Your task to perform on an android device: allow cookies in the chrome app Image 0: 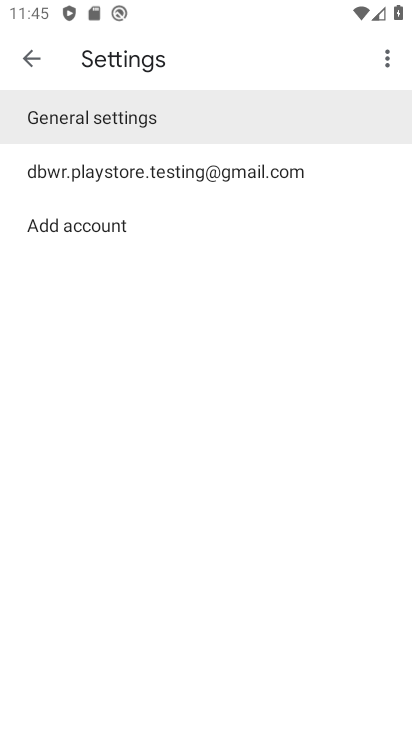
Step 0: press home button
Your task to perform on an android device: allow cookies in the chrome app Image 1: 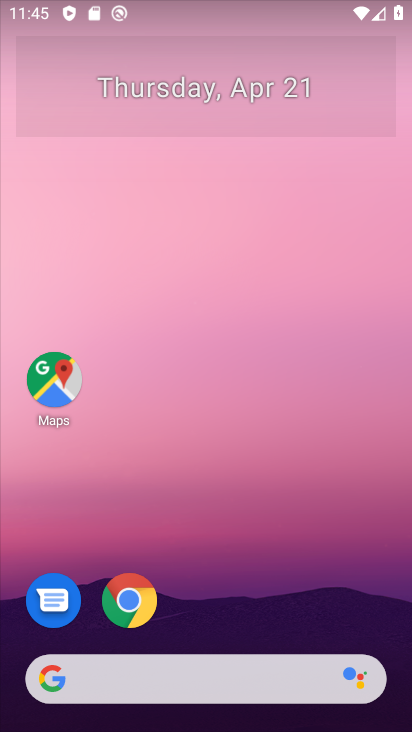
Step 1: click (144, 589)
Your task to perform on an android device: allow cookies in the chrome app Image 2: 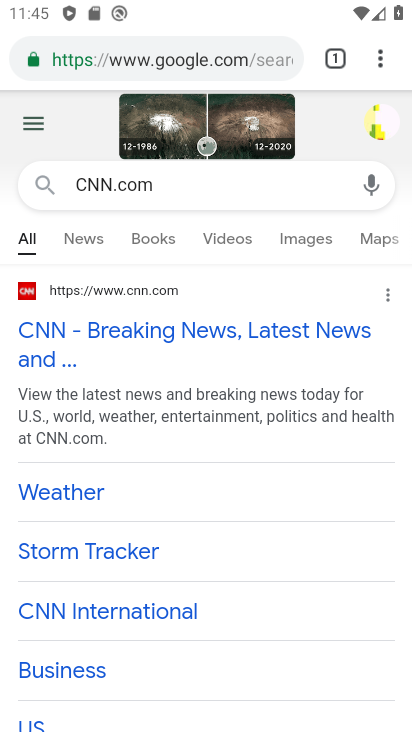
Step 2: click (388, 66)
Your task to perform on an android device: allow cookies in the chrome app Image 3: 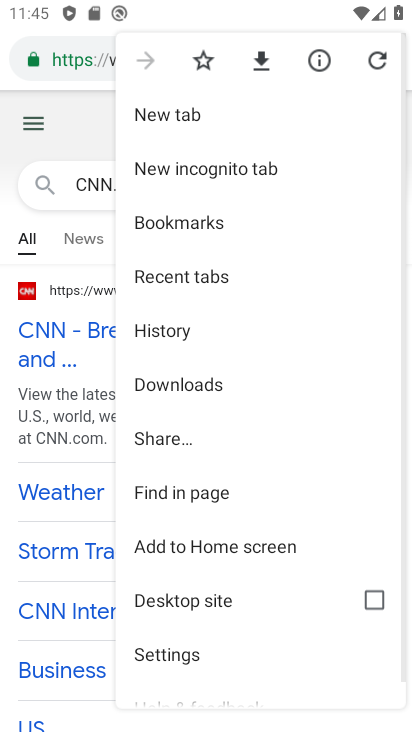
Step 3: drag from (214, 553) to (230, 263)
Your task to perform on an android device: allow cookies in the chrome app Image 4: 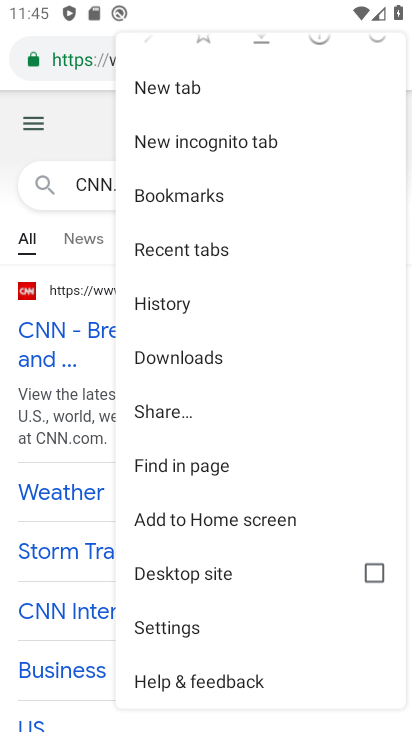
Step 4: click (187, 628)
Your task to perform on an android device: allow cookies in the chrome app Image 5: 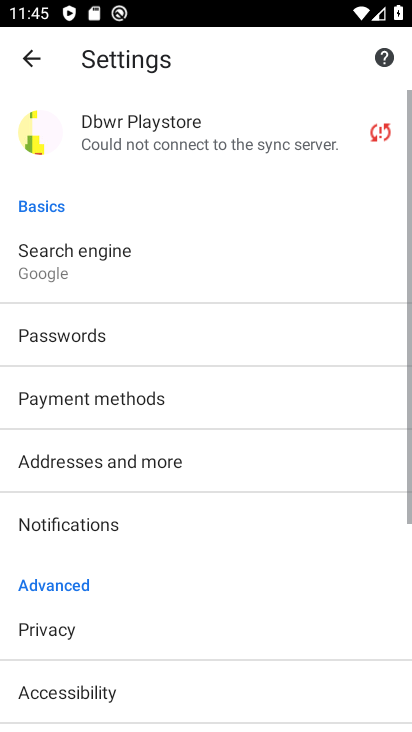
Step 5: drag from (74, 635) to (148, 366)
Your task to perform on an android device: allow cookies in the chrome app Image 6: 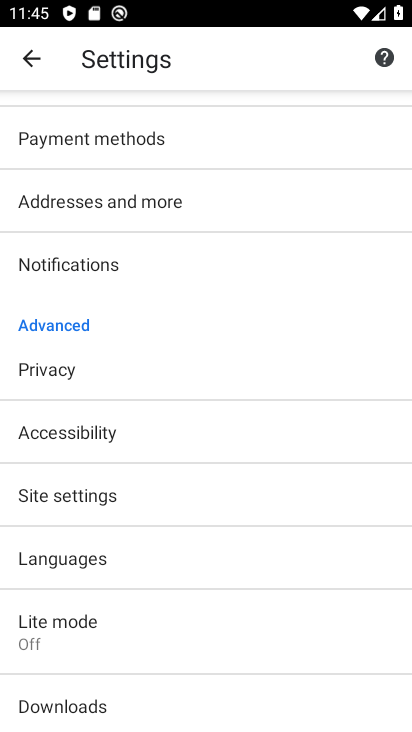
Step 6: click (83, 493)
Your task to perform on an android device: allow cookies in the chrome app Image 7: 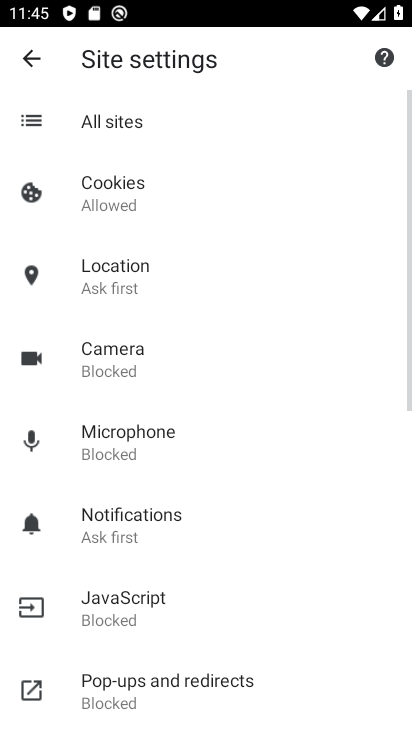
Step 7: click (114, 190)
Your task to perform on an android device: allow cookies in the chrome app Image 8: 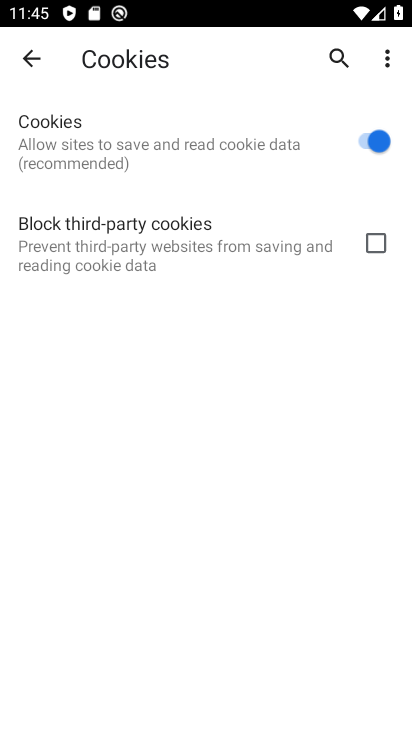
Step 8: task complete